Your task to perform on an android device: turn on sleep mode Image 0: 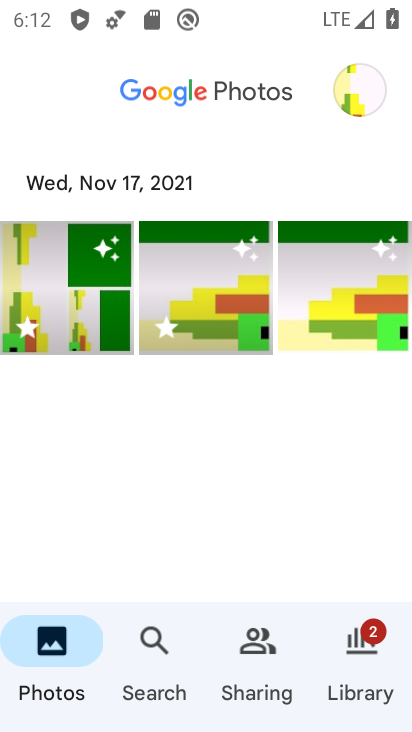
Step 0: press home button
Your task to perform on an android device: turn on sleep mode Image 1: 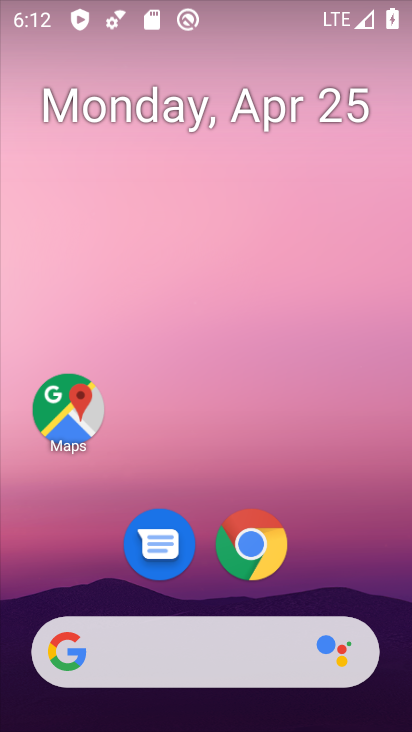
Step 1: drag from (354, 583) to (327, 51)
Your task to perform on an android device: turn on sleep mode Image 2: 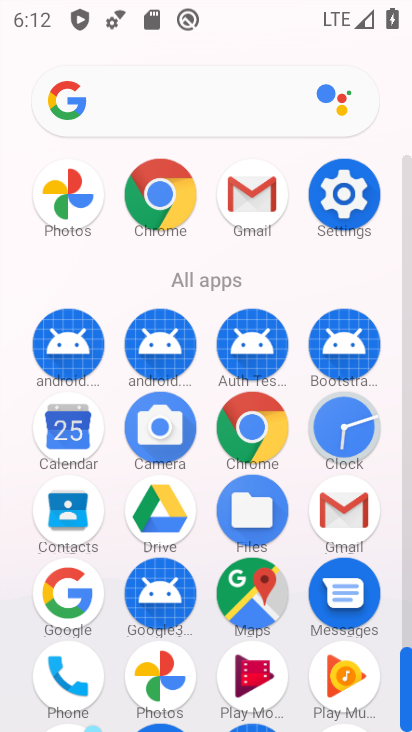
Step 2: click (346, 204)
Your task to perform on an android device: turn on sleep mode Image 3: 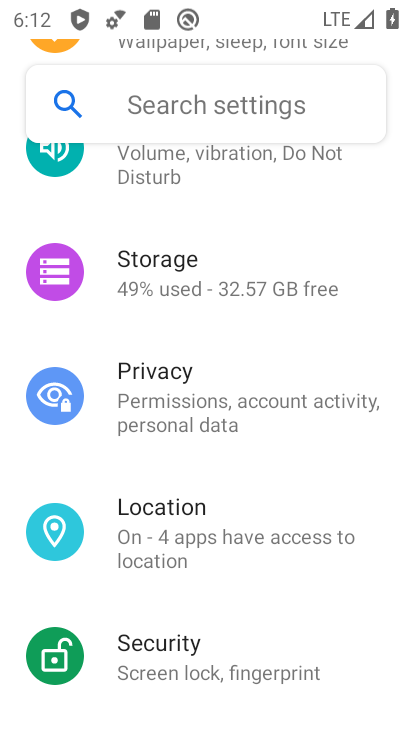
Step 3: drag from (242, 303) to (228, 537)
Your task to perform on an android device: turn on sleep mode Image 4: 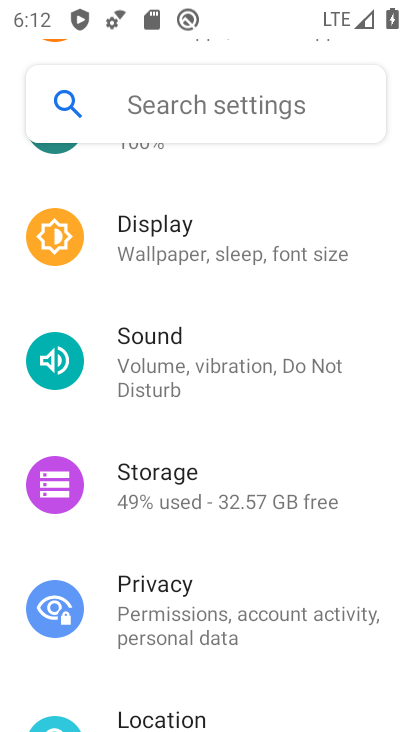
Step 4: click (229, 264)
Your task to perform on an android device: turn on sleep mode Image 5: 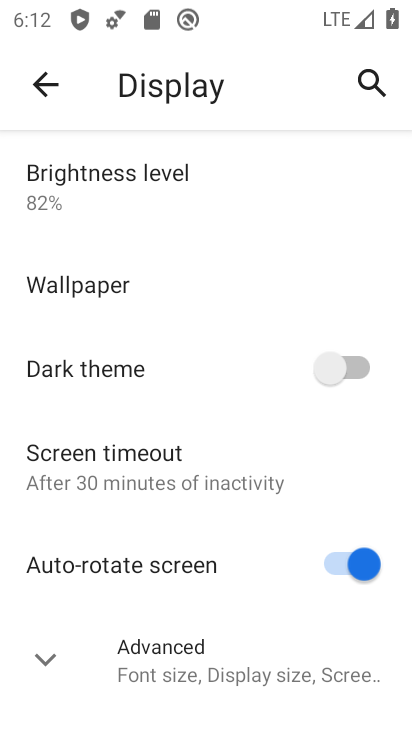
Step 5: task complete